Your task to perform on an android device: check storage Image 0: 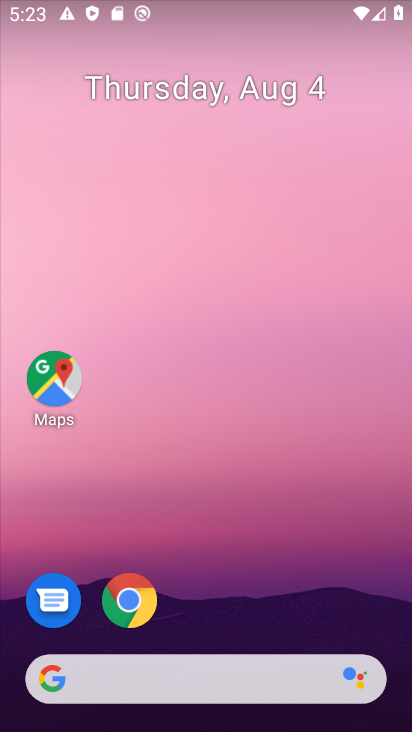
Step 0: drag from (238, 591) to (297, 3)
Your task to perform on an android device: check storage Image 1: 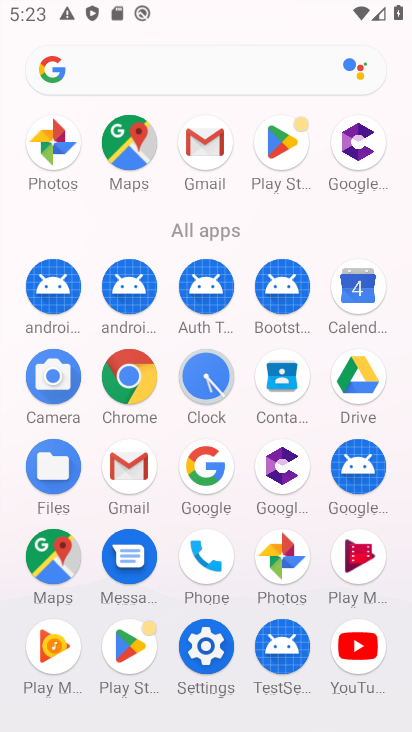
Step 1: click (210, 652)
Your task to perform on an android device: check storage Image 2: 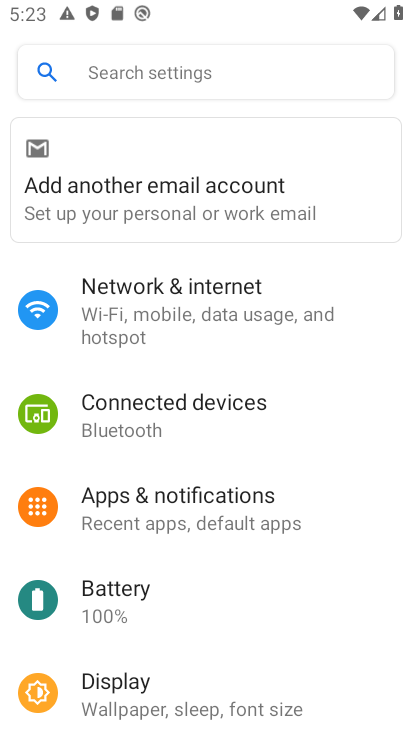
Step 2: drag from (227, 637) to (263, 70)
Your task to perform on an android device: check storage Image 3: 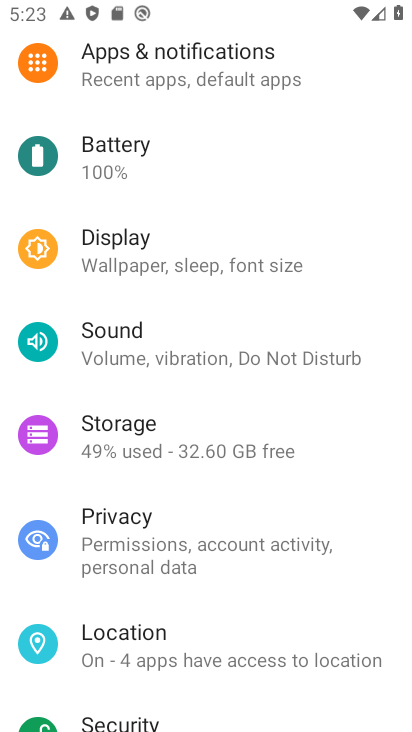
Step 3: click (173, 427)
Your task to perform on an android device: check storage Image 4: 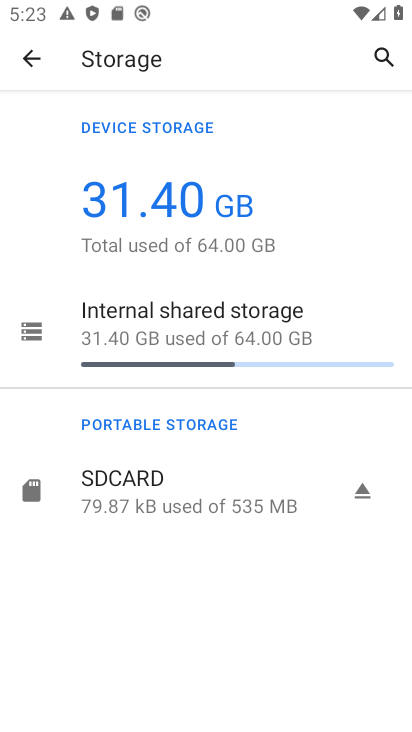
Step 4: task complete